Your task to perform on an android device: View the shopping cart on newegg. Add "usb-c to usb-a" to the cart on newegg Image 0: 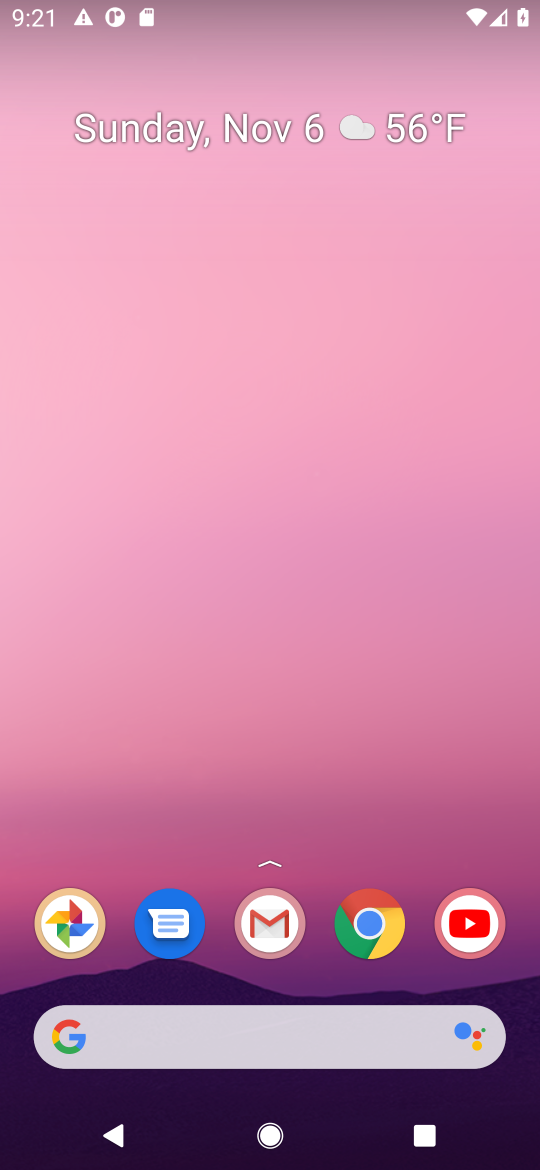
Step 0: click (373, 922)
Your task to perform on an android device: View the shopping cart on newegg. Add "usb-c to usb-a" to the cart on newegg Image 1: 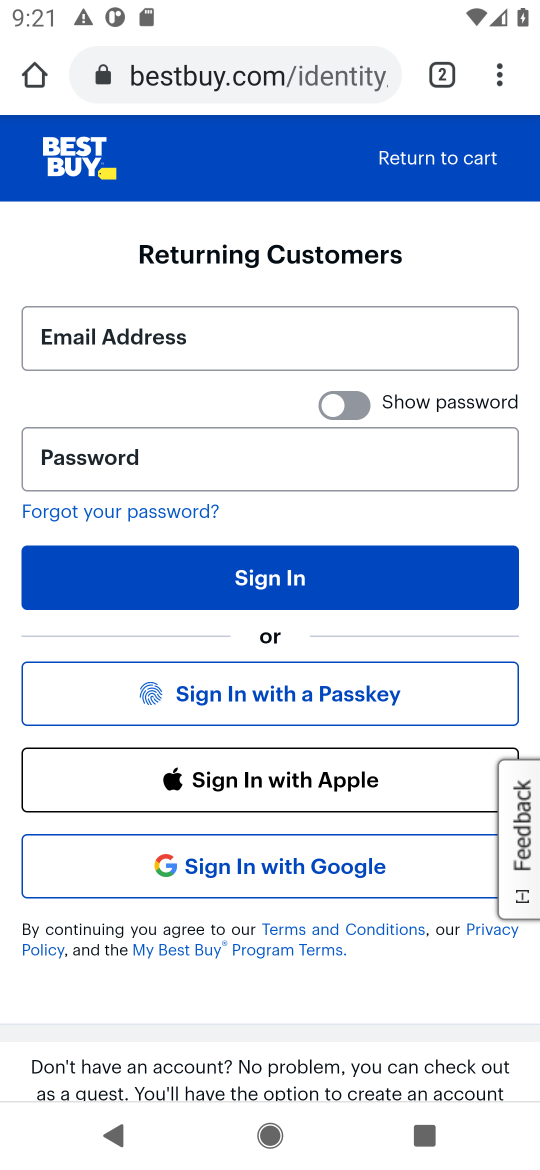
Step 1: click (236, 77)
Your task to perform on an android device: View the shopping cart on newegg. Add "usb-c to usb-a" to the cart on newegg Image 2: 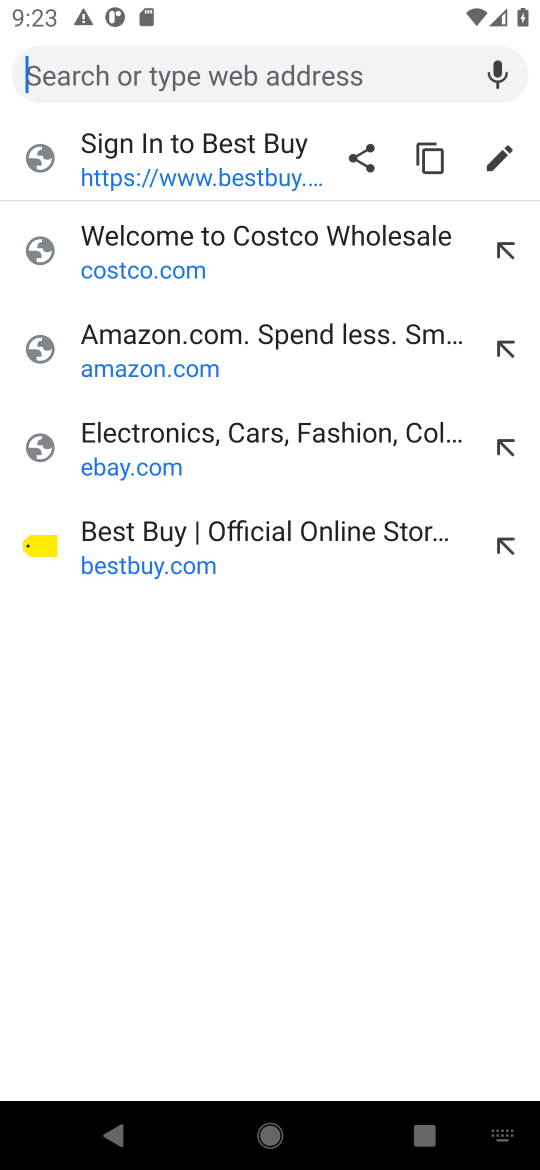
Step 2: type "newegg.com"
Your task to perform on an android device: View the shopping cart on newegg. Add "usb-c to usb-a" to the cart on newegg Image 3: 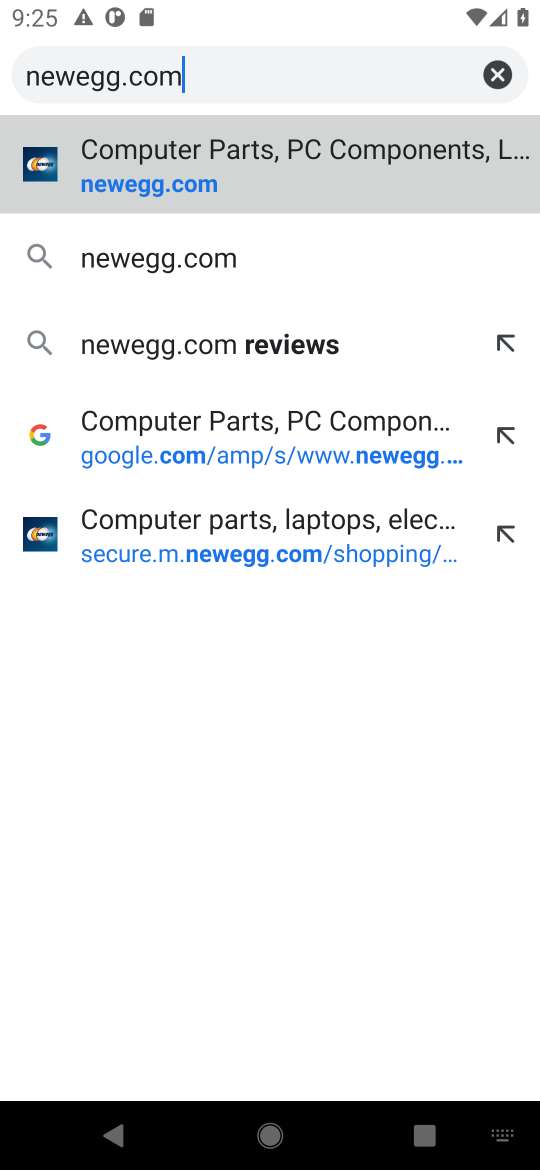
Step 3: click (88, 190)
Your task to perform on an android device: View the shopping cart on newegg. Add "usb-c to usb-a" to the cart on newegg Image 4: 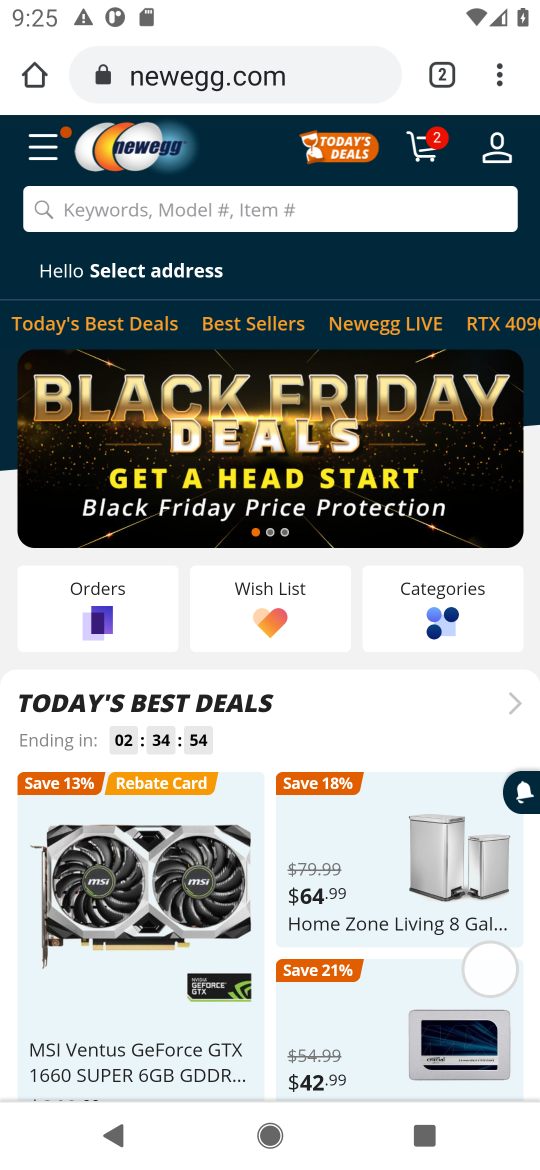
Step 4: click (429, 156)
Your task to perform on an android device: View the shopping cart on newegg. Add "usb-c to usb-a" to the cart on newegg Image 5: 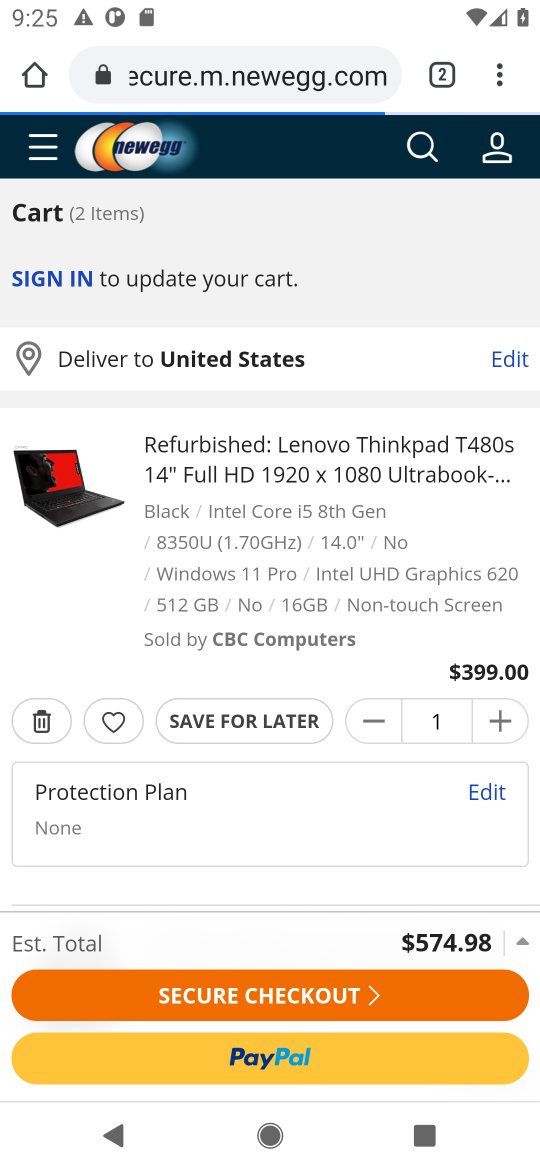
Step 5: click (422, 136)
Your task to perform on an android device: View the shopping cart on newegg. Add "usb-c to usb-a" to the cart on newegg Image 6: 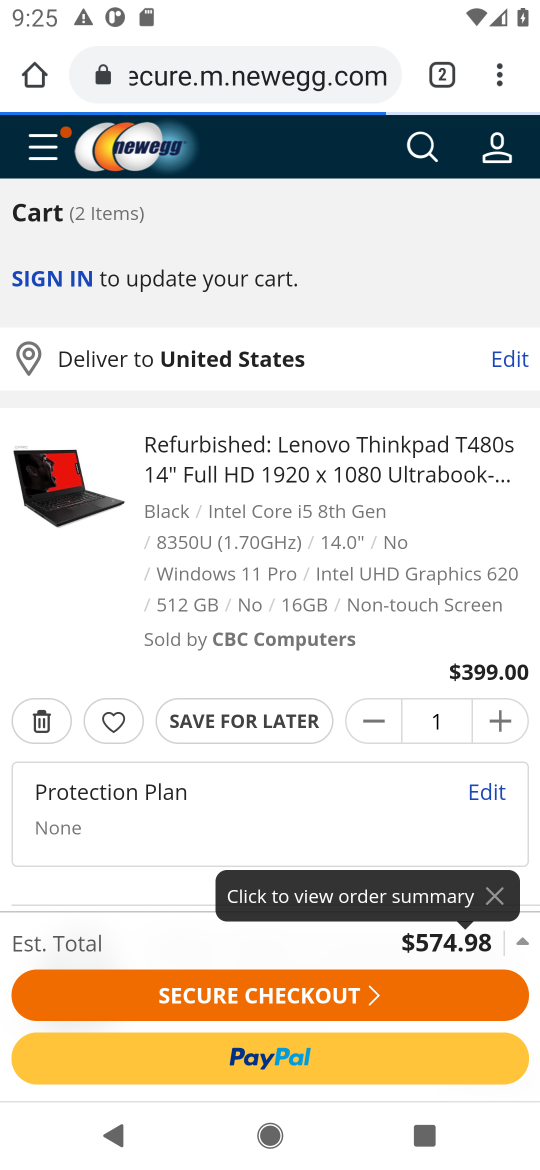
Step 6: type "usb-c to usb-a"
Your task to perform on an android device: View the shopping cart on newegg. Add "usb-c to usb-a" to the cart on newegg Image 7: 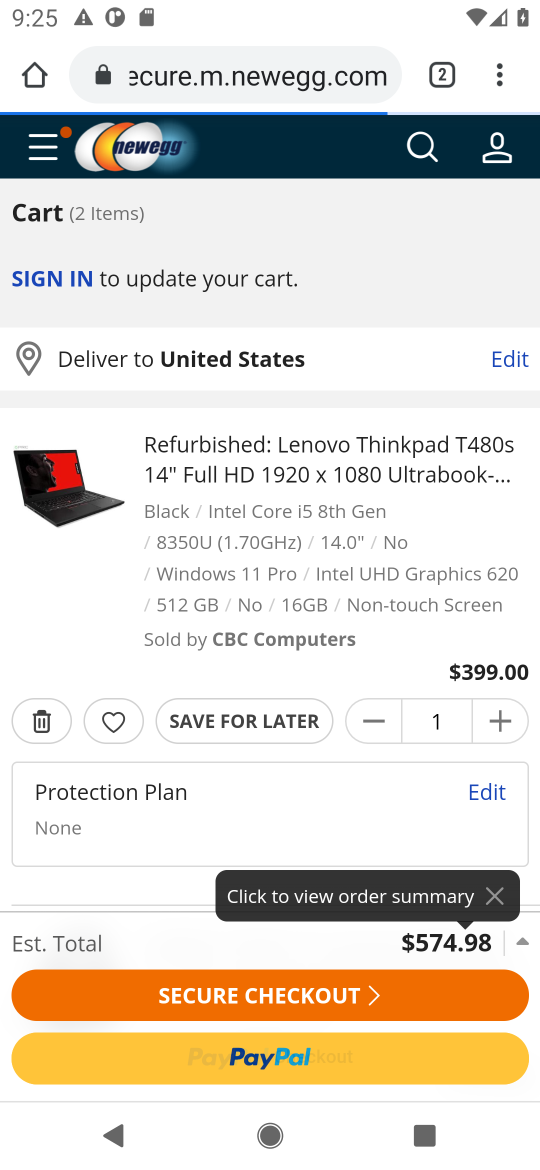
Step 7: click (415, 150)
Your task to perform on an android device: View the shopping cart on newegg. Add "usb-c to usb-a" to the cart on newegg Image 8: 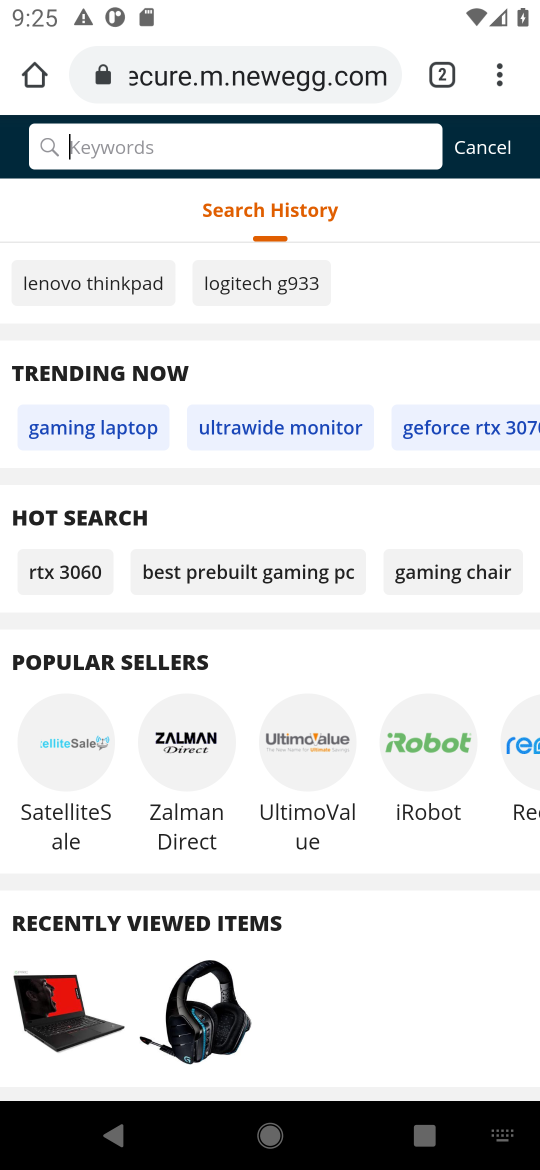
Step 8: type "usb-c to usb-a"
Your task to perform on an android device: View the shopping cart on newegg. Add "usb-c to usb-a" to the cart on newegg Image 9: 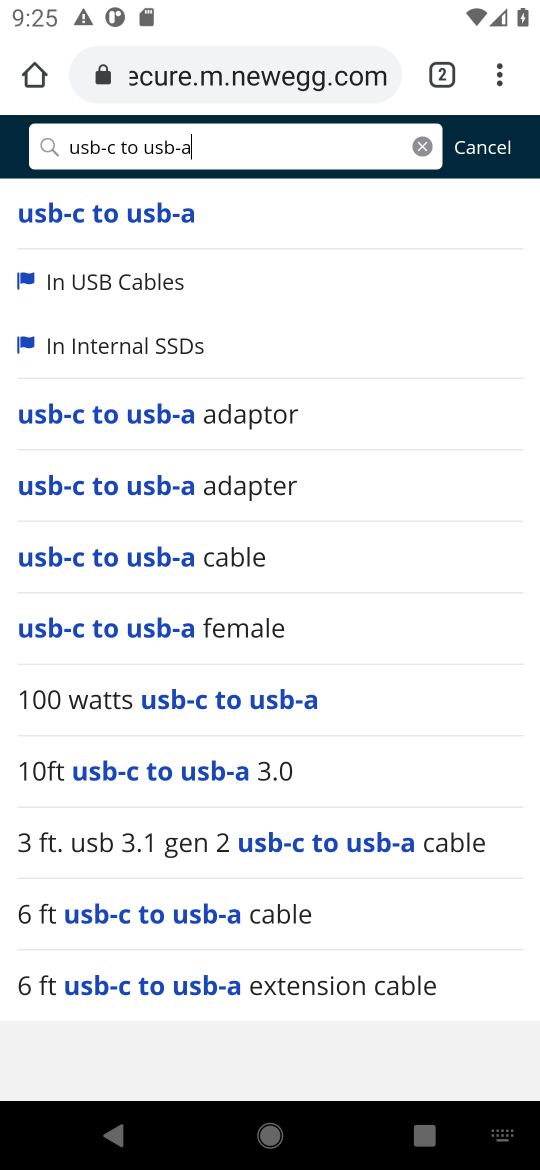
Step 9: click (144, 223)
Your task to perform on an android device: View the shopping cart on newegg. Add "usb-c to usb-a" to the cart on newegg Image 10: 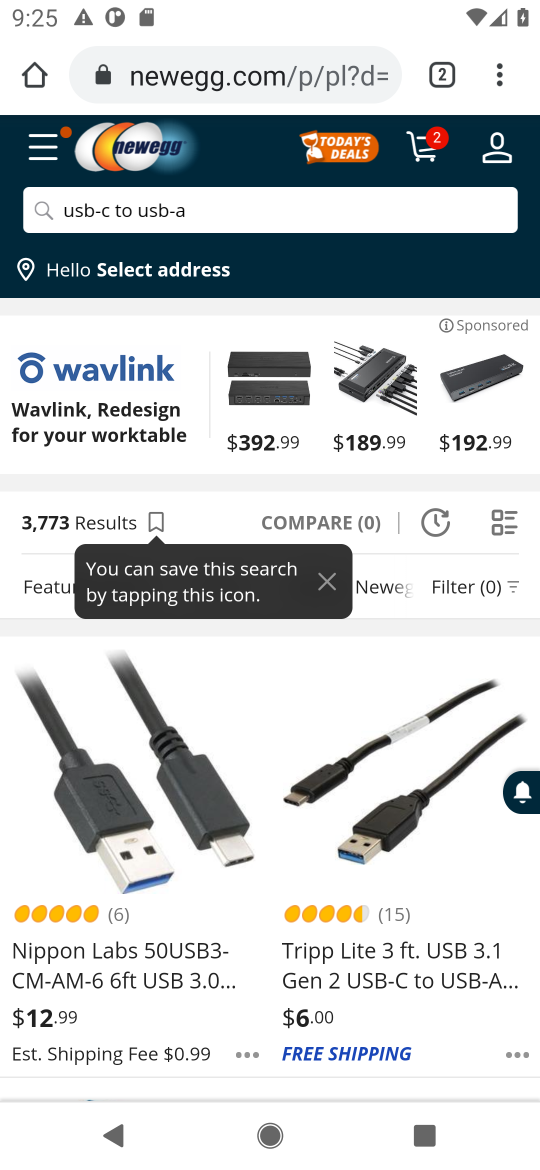
Step 10: drag from (210, 964) to (200, 635)
Your task to perform on an android device: View the shopping cart on newegg. Add "usb-c to usb-a" to the cart on newegg Image 11: 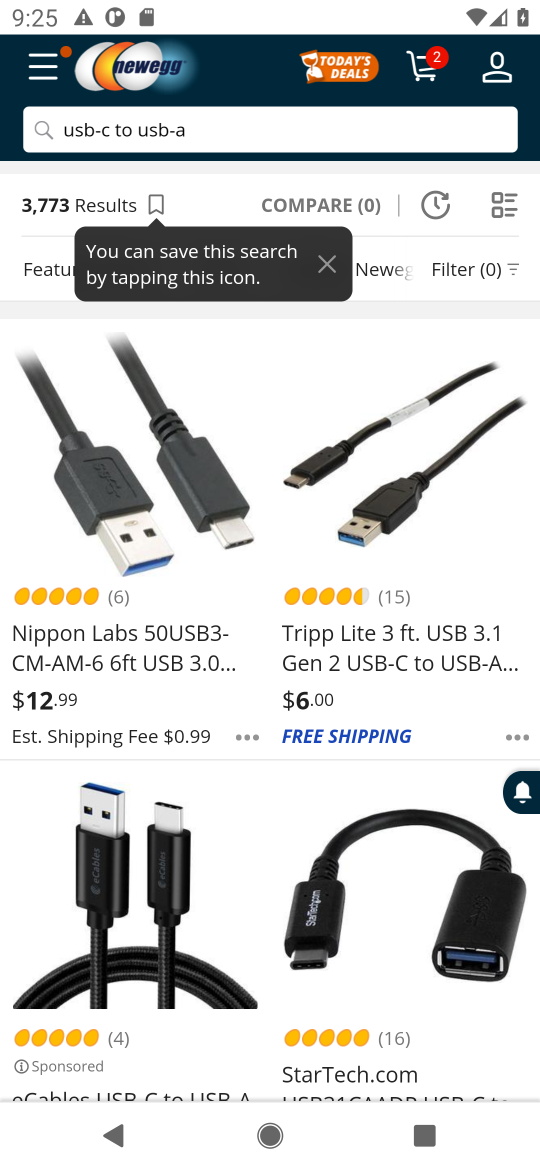
Step 11: click (412, 608)
Your task to perform on an android device: View the shopping cart on newegg. Add "usb-c to usb-a" to the cart on newegg Image 12: 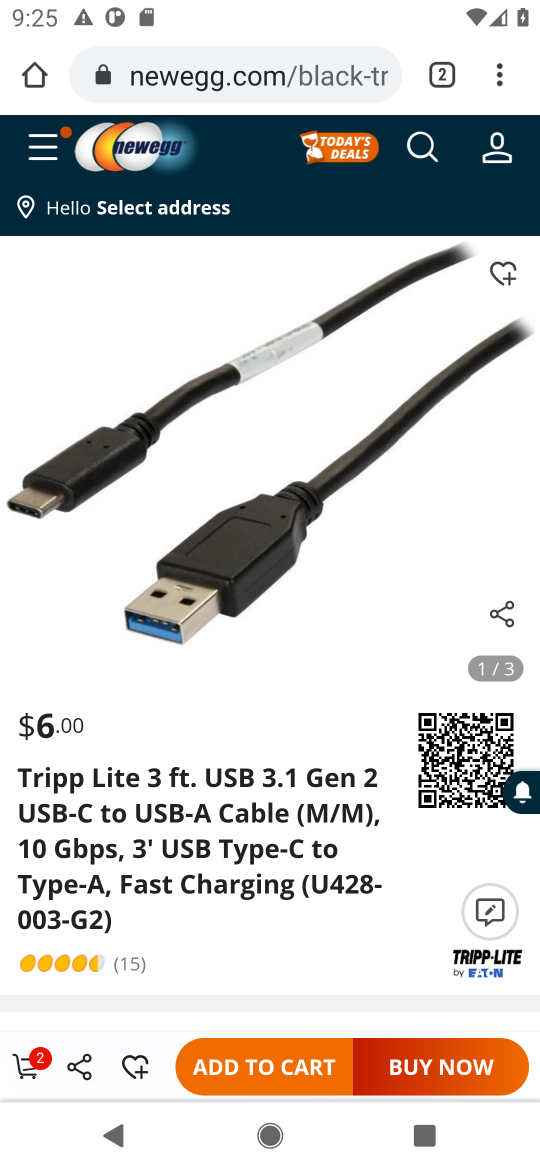
Step 12: click (263, 1077)
Your task to perform on an android device: View the shopping cart on newegg. Add "usb-c to usb-a" to the cart on newegg Image 13: 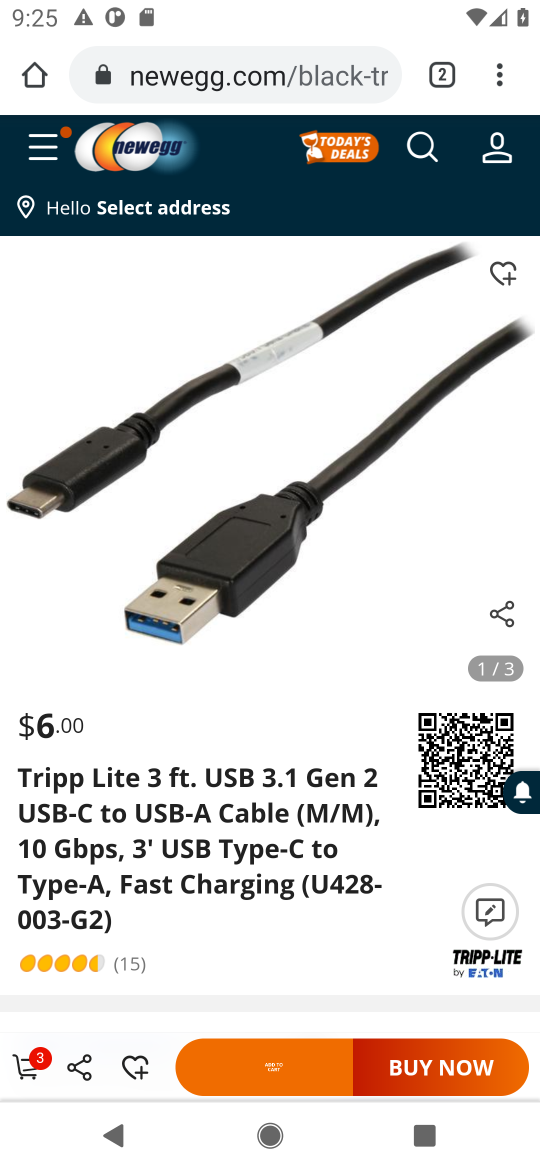
Step 13: task complete